Your task to perform on an android device: turn on priority inbox in the gmail app Image 0: 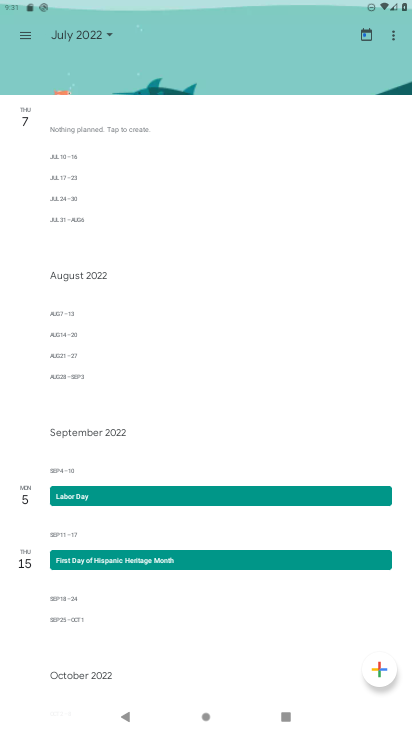
Step 0: press home button
Your task to perform on an android device: turn on priority inbox in the gmail app Image 1: 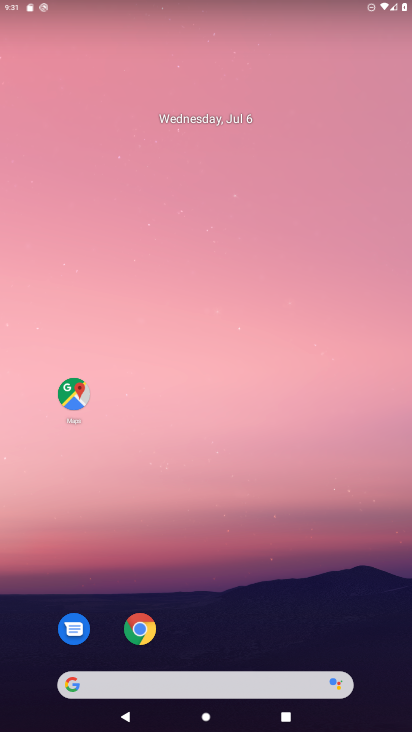
Step 1: drag from (319, 659) to (319, 0)
Your task to perform on an android device: turn on priority inbox in the gmail app Image 2: 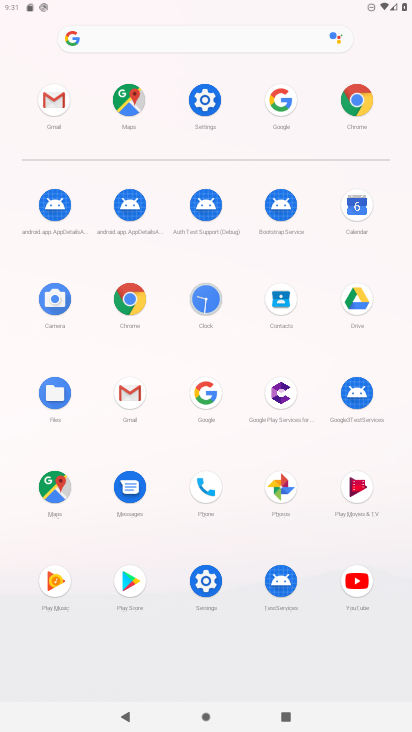
Step 2: click (132, 394)
Your task to perform on an android device: turn on priority inbox in the gmail app Image 3: 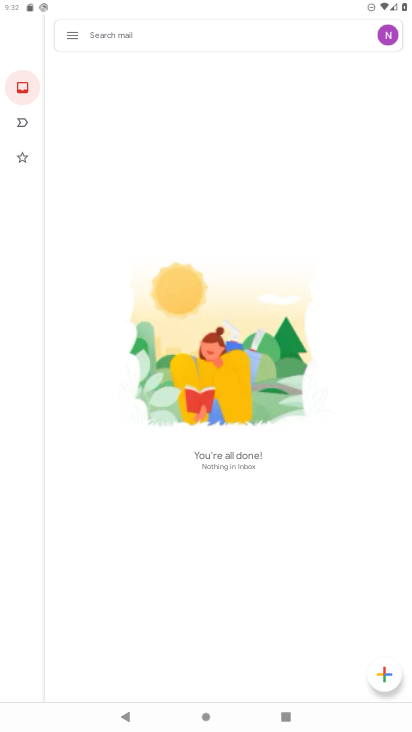
Step 3: click (62, 42)
Your task to perform on an android device: turn on priority inbox in the gmail app Image 4: 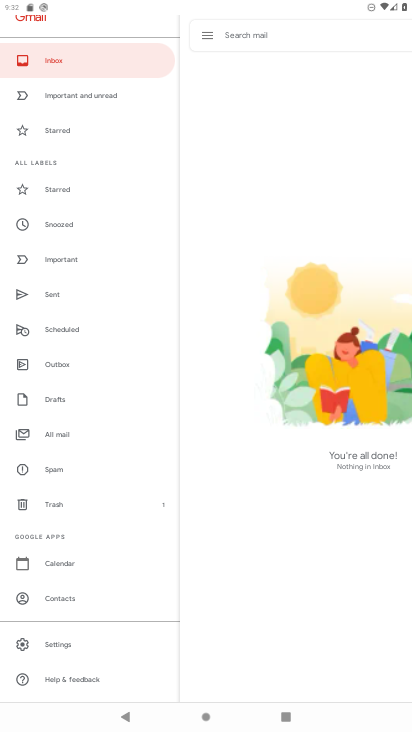
Step 4: click (51, 642)
Your task to perform on an android device: turn on priority inbox in the gmail app Image 5: 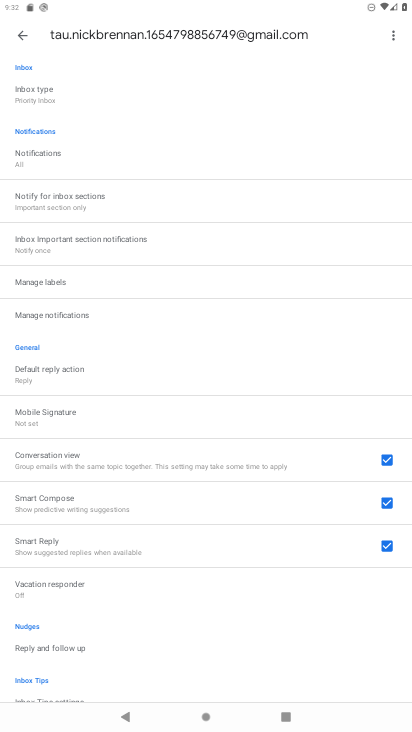
Step 5: drag from (110, 187) to (105, 565)
Your task to perform on an android device: turn on priority inbox in the gmail app Image 6: 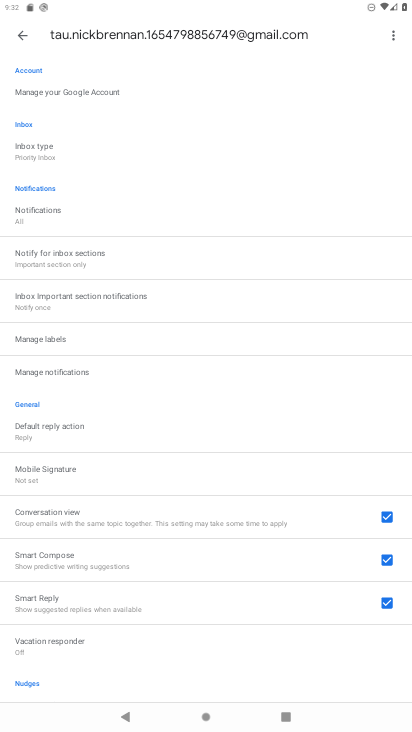
Step 6: click (58, 149)
Your task to perform on an android device: turn on priority inbox in the gmail app Image 7: 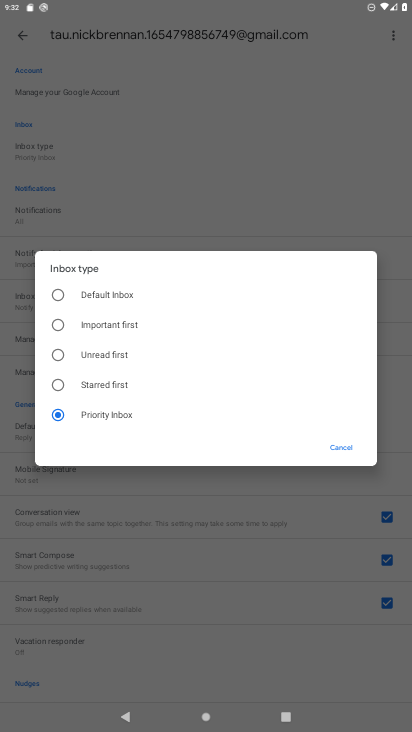
Step 7: task complete